Your task to perform on an android device: turn pop-ups off in chrome Image 0: 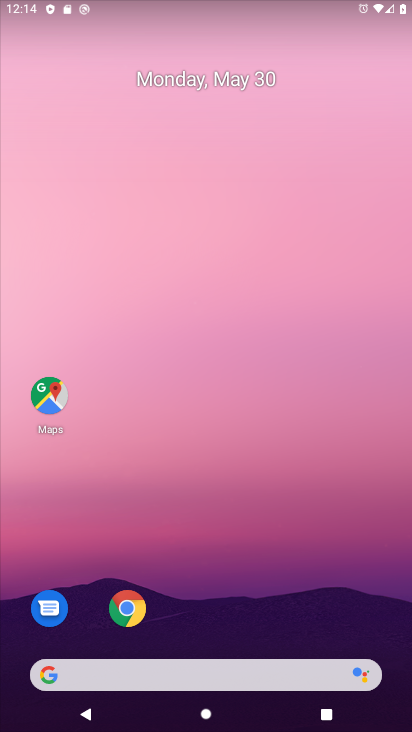
Step 0: click (127, 614)
Your task to perform on an android device: turn pop-ups off in chrome Image 1: 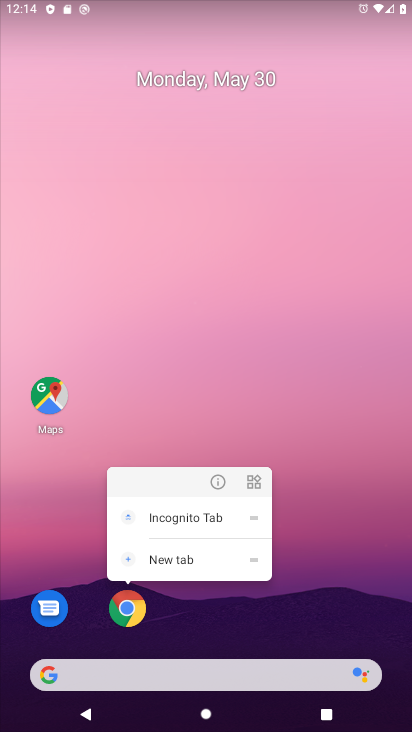
Step 1: click (136, 635)
Your task to perform on an android device: turn pop-ups off in chrome Image 2: 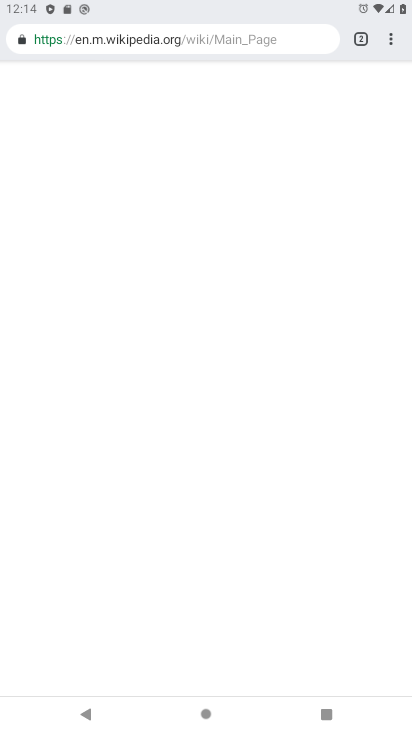
Step 2: click (388, 32)
Your task to perform on an android device: turn pop-ups off in chrome Image 3: 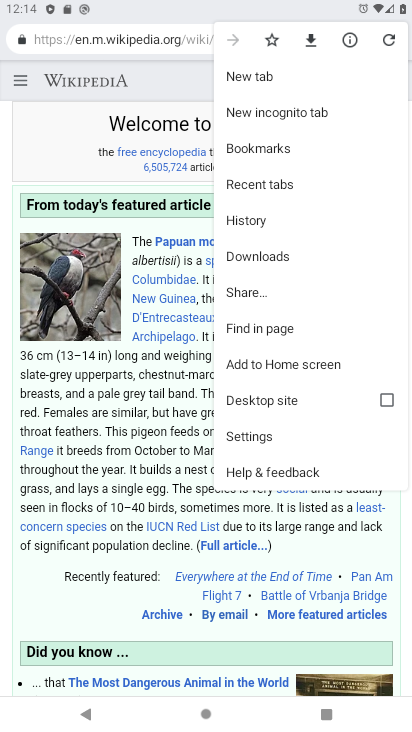
Step 3: click (258, 432)
Your task to perform on an android device: turn pop-ups off in chrome Image 4: 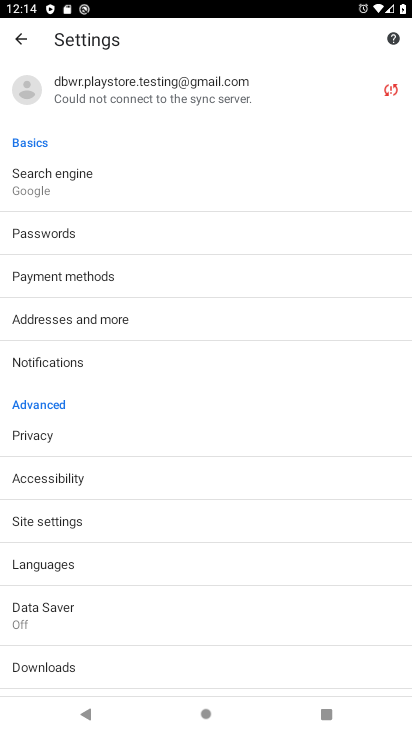
Step 4: click (49, 514)
Your task to perform on an android device: turn pop-ups off in chrome Image 5: 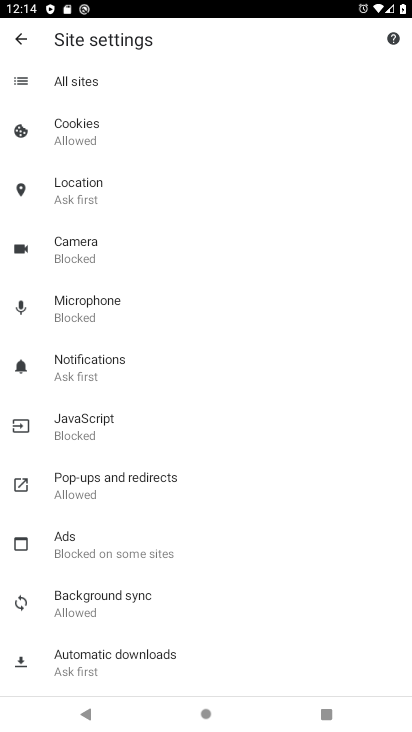
Step 5: click (95, 482)
Your task to perform on an android device: turn pop-ups off in chrome Image 6: 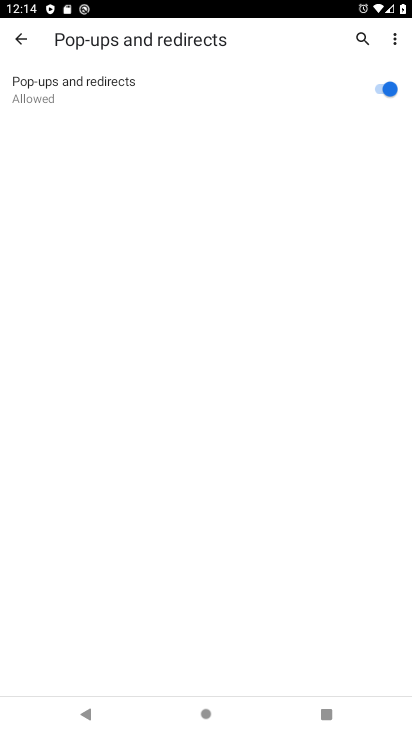
Step 6: click (386, 87)
Your task to perform on an android device: turn pop-ups off in chrome Image 7: 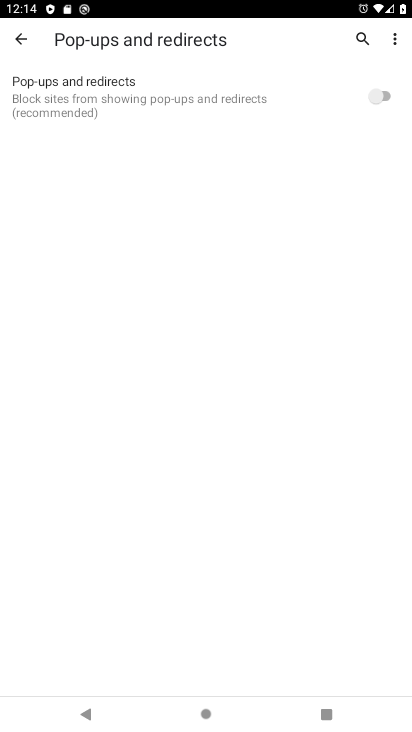
Step 7: task complete